Your task to perform on an android device: Open Wikipedia Image 0: 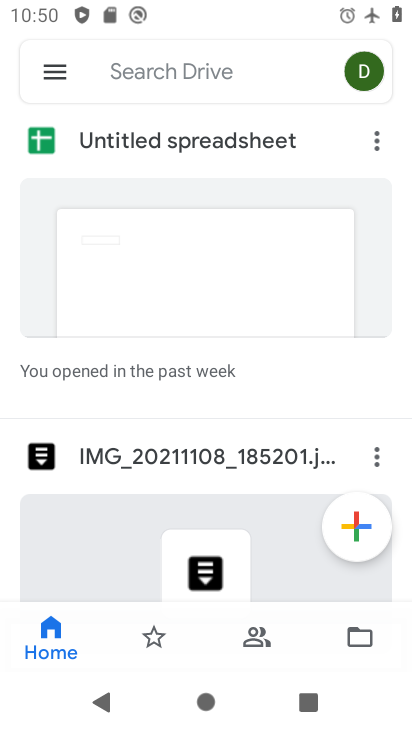
Step 0: press home button
Your task to perform on an android device: Open Wikipedia Image 1: 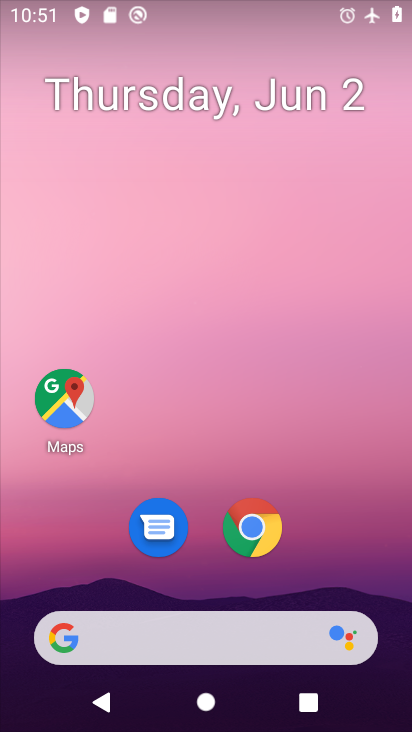
Step 1: click (232, 536)
Your task to perform on an android device: Open Wikipedia Image 2: 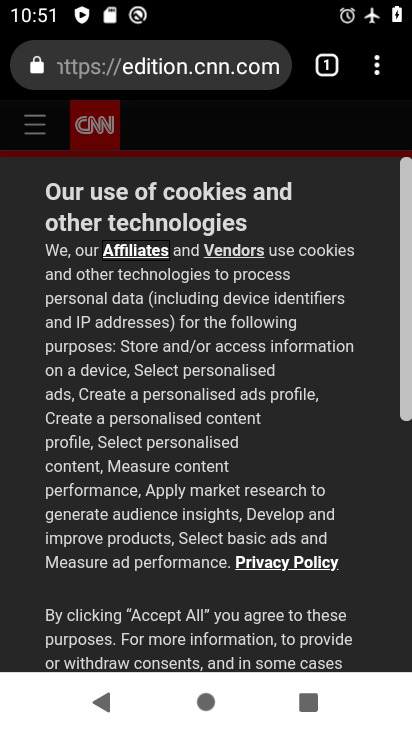
Step 2: click (137, 61)
Your task to perform on an android device: Open Wikipedia Image 3: 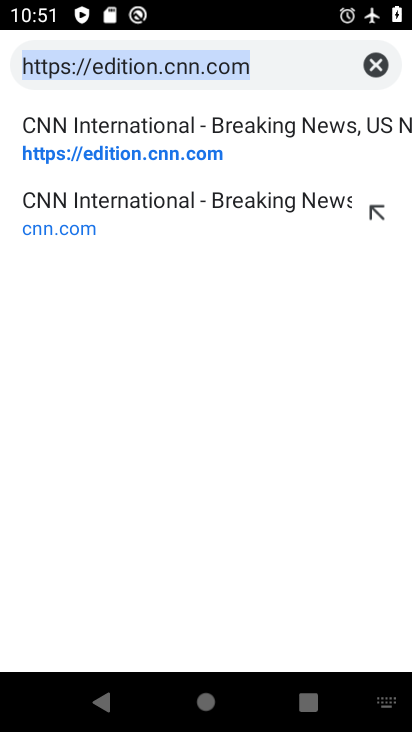
Step 3: type "wikipedia"
Your task to perform on an android device: Open Wikipedia Image 4: 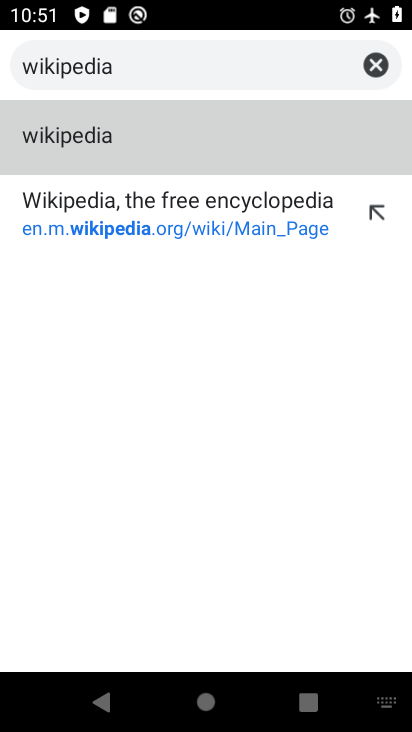
Step 4: click (192, 231)
Your task to perform on an android device: Open Wikipedia Image 5: 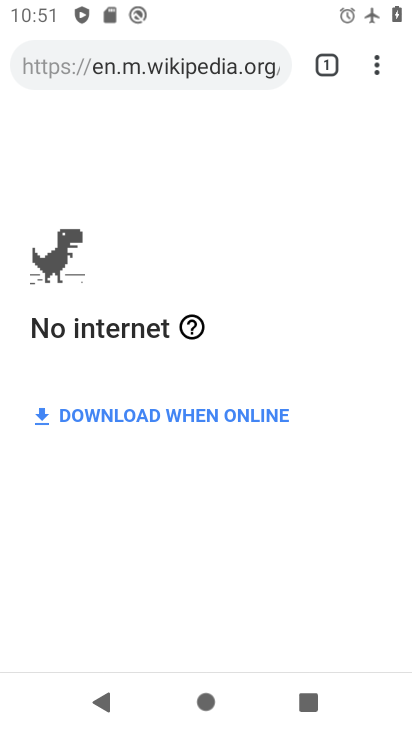
Step 5: task complete